Your task to perform on an android device: Go to Wikipedia Image 0: 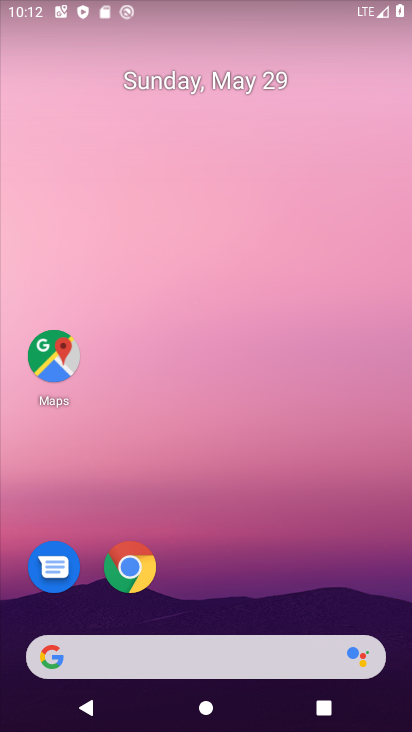
Step 0: click (131, 567)
Your task to perform on an android device: Go to Wikipedia Image 1: 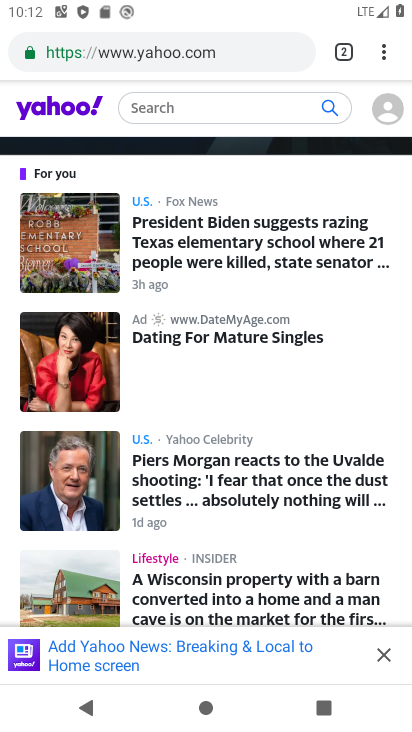
Step 1: click (233, 51)
Your task to perform on an android device: Go to Wikipedia Image 2: 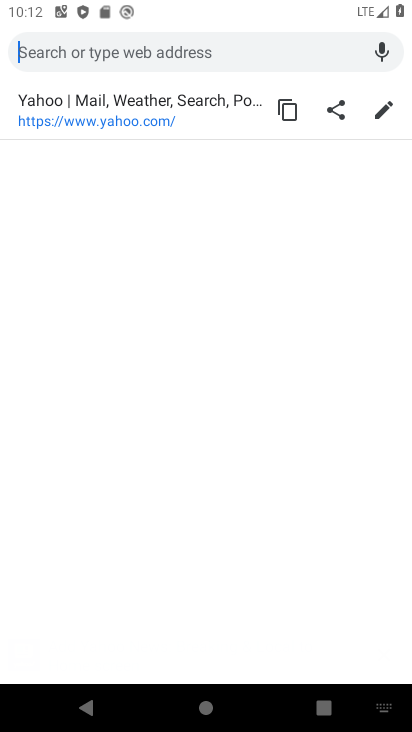
Step 2: type "wikipedia"
Your task to perform on an android device: Go to Wikipedia Image 3: 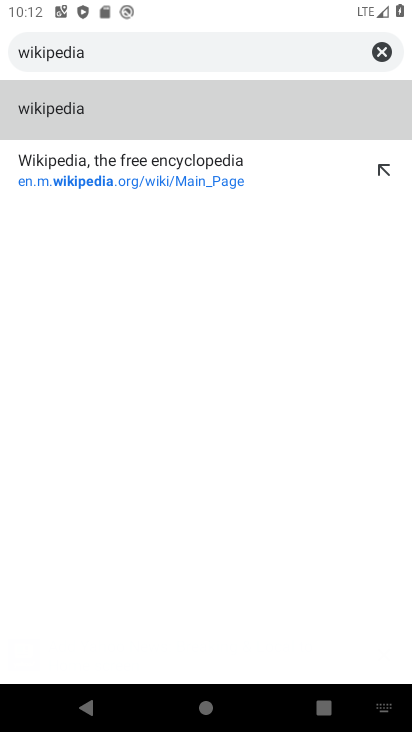
Step 3: click (56, 120)
Your task to perform on an android device: Go to Wikipedia Image 4: 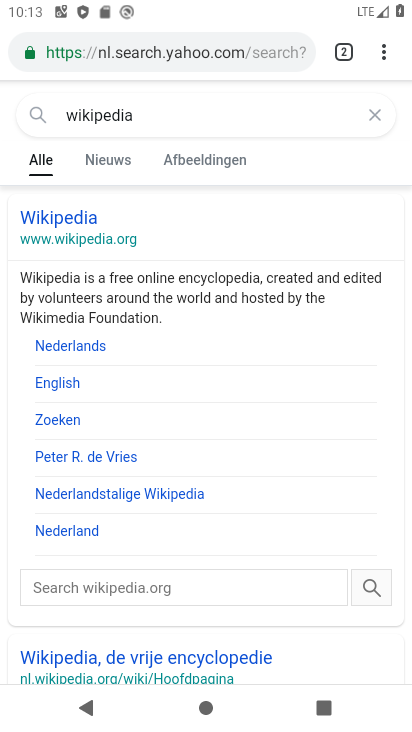
Step 4: click (86, 240)
Your task to perform on an android device: Go to Wikipedia Image 5: 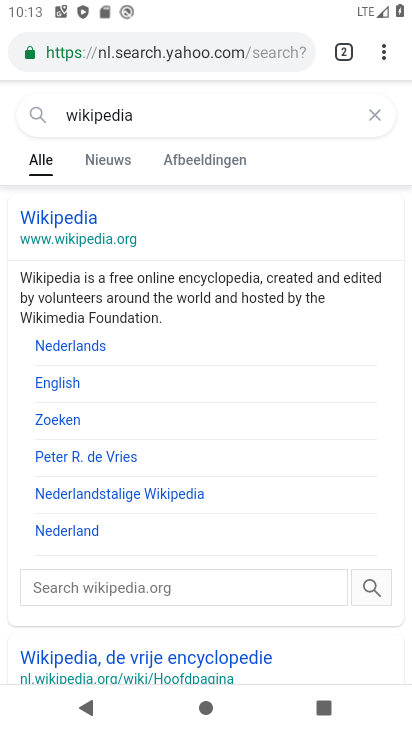
Step 5: click (78, 228)
Your task to perform on an android device: Go to Wikipedia Image 6: 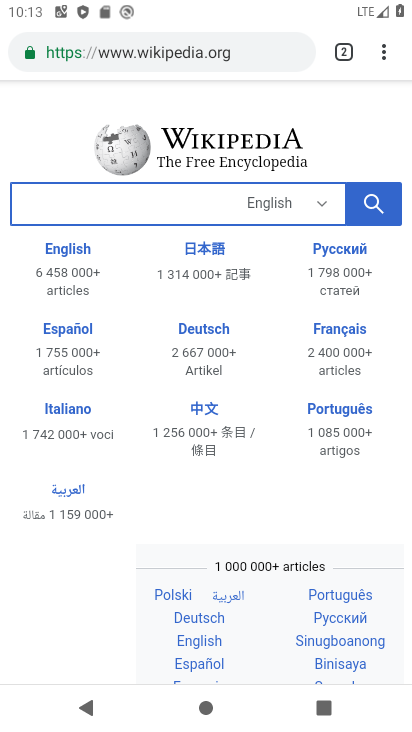
Step 6: task complete